Your task to perform on an android device: Open location settings Image 0: 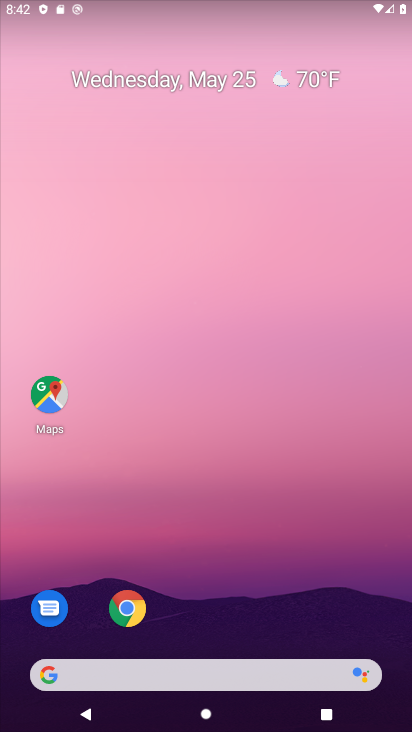
Step 0: drag from (290, 548) to (282, 49)
Your task to perform on an android device: Open location settings Image 1: 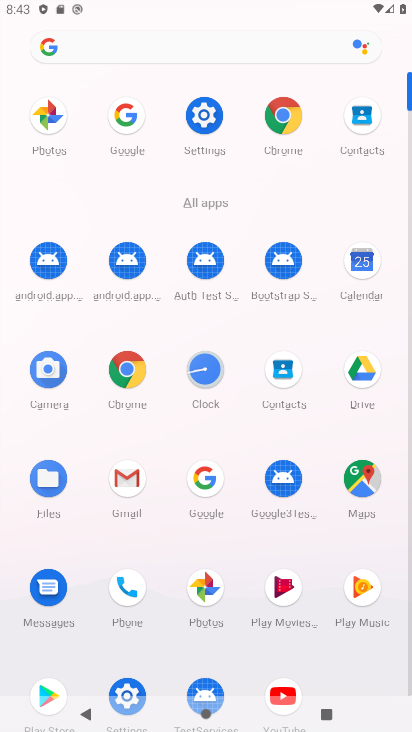
Step 1: click (213, 89)
Your task to perform on an android device: Open location settings Image 2: 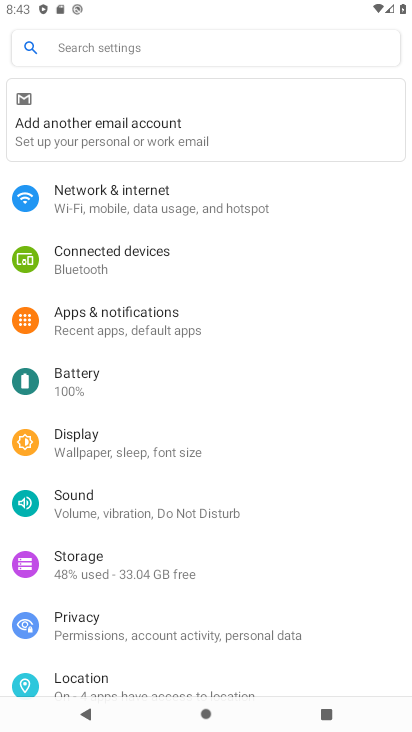
Step 2: click (182, 686)
Your task to perform on an android device: Open location settings Image 3: 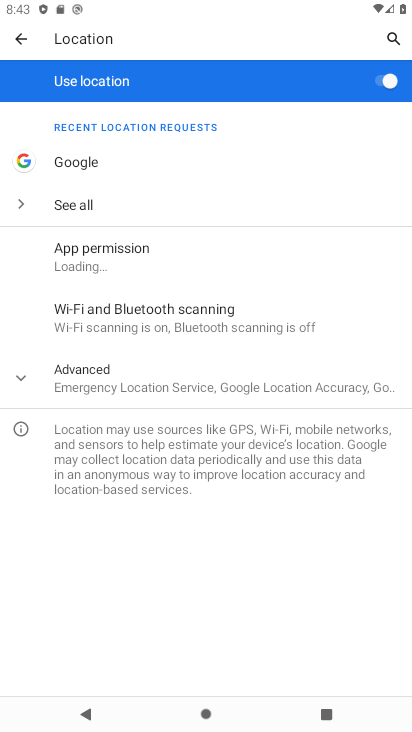
Step 3: task complete